Your task to perform on an android device: delete a single message in the gmail app Image 0: 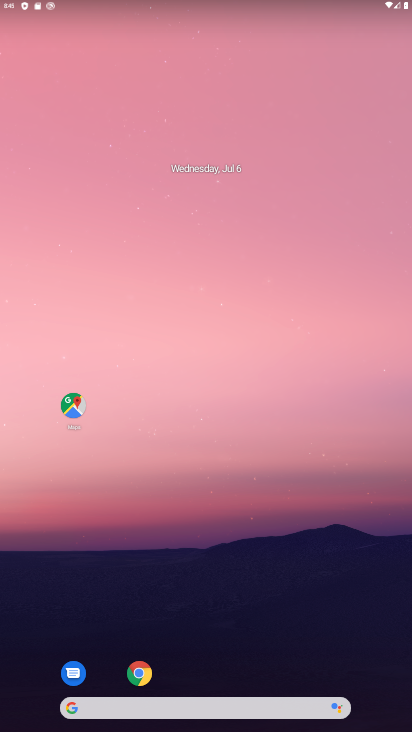
Step 0: drag from (295, 609) to (246, 160)
Your task to perform on an android device: delete a single message in the gmail app Image 1: 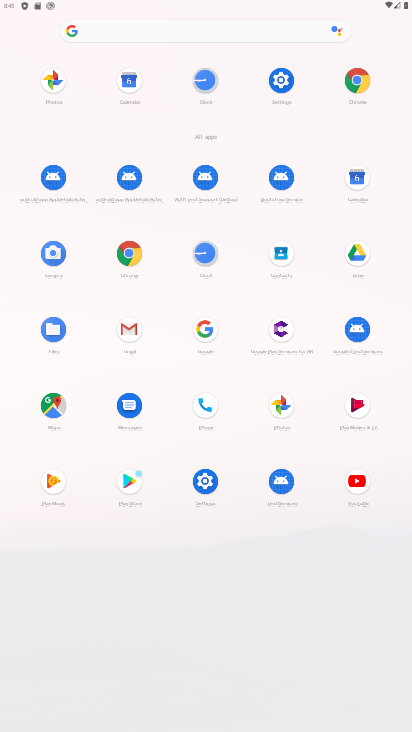
Step 1: click (122, 322)
Your task to perform on an android device: delete a single message in the gmail app Image 2: 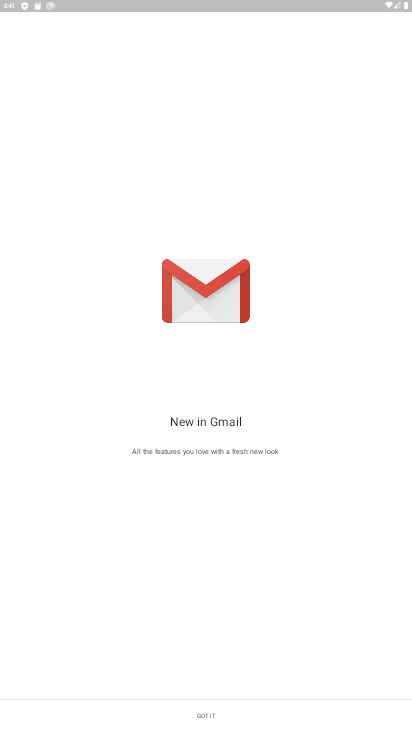
Step 2: click (235, 704)
Your task to perform on an android device: delete a single message in the gmail app Image 3: 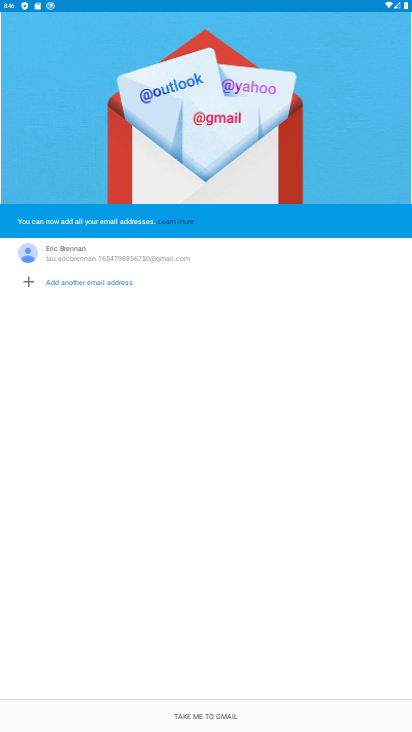
Step 3: click (235, 704)
Your task to perform on an android device: delete a single message in the gmail app Image 4: 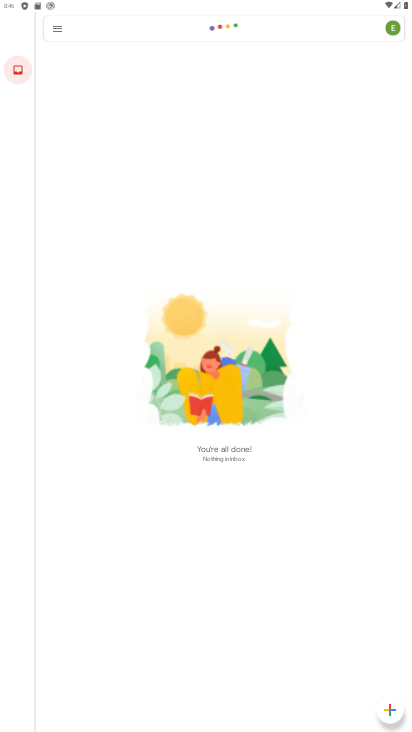
Step 4: click (55, 25)
Your task to perform on an android device: delete a single message in the gmail app Image 5: 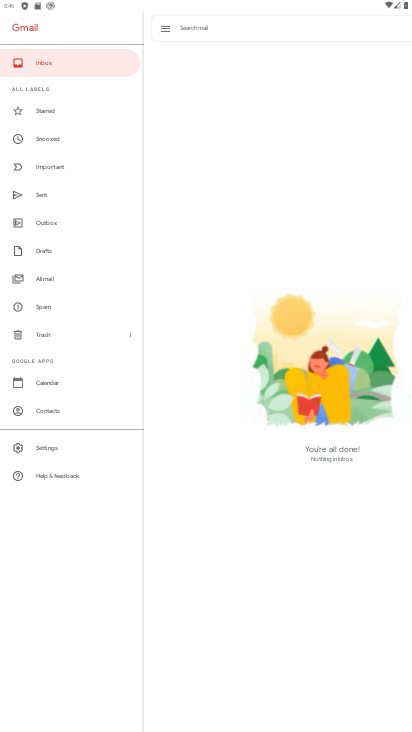
Step 5: click (53, 273)
Your task to perform on an android device: delete a single message in the gmail app Image 6: 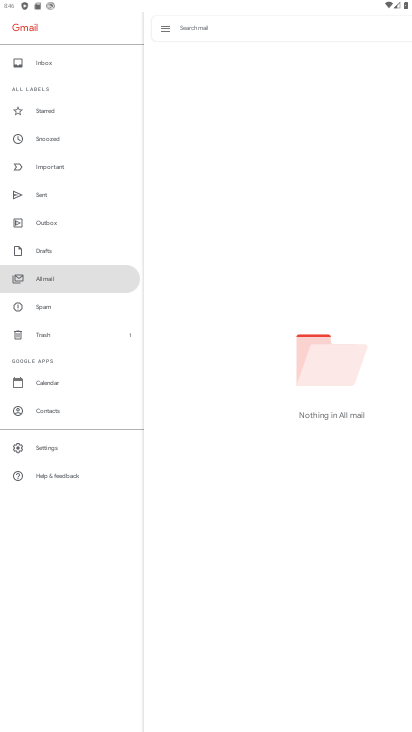
Step 6: click (53, 271)
Your task to perform on an android device: delete a single message in the gmail app Image 7: 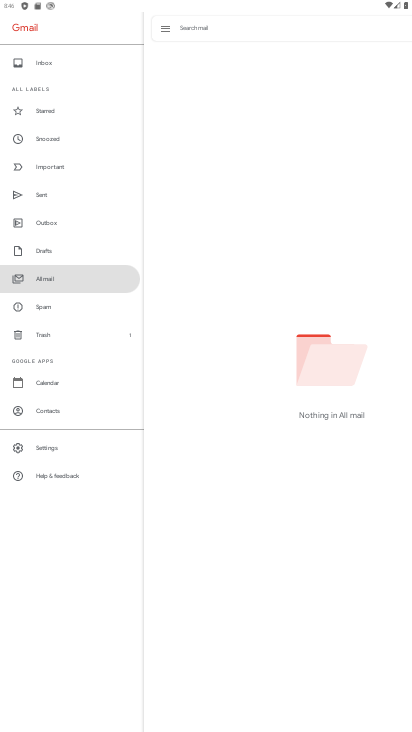
Step 7: click (65, 269)
Your task to perform on an android device: delete a single message in the gmail app Image 8: 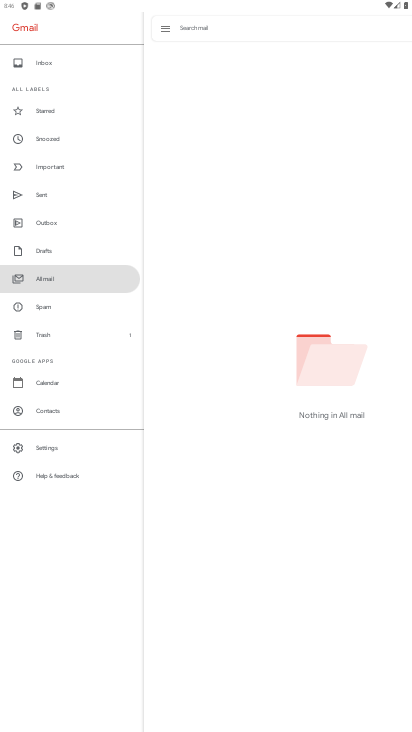
Step 8: click (51, 281)
Your task to perform on an android device: delete a single message in the gmail app Image 9: 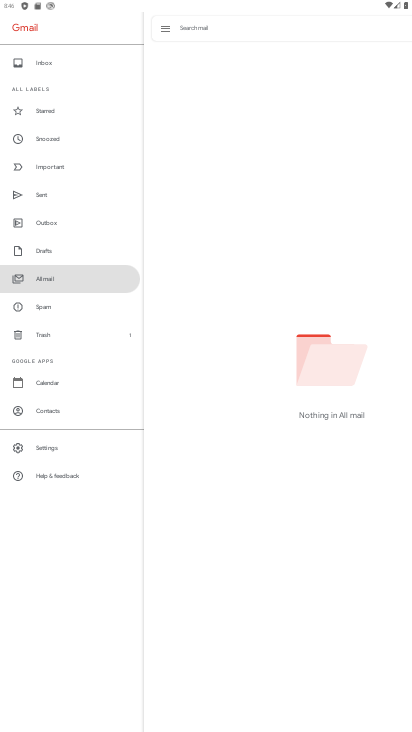
Step 9: task complete